Your task to perform on an android device: What's on my calendar tomorrow? Image 0: 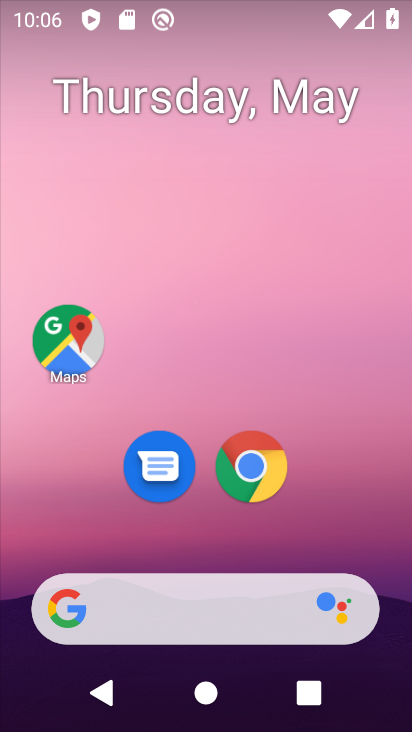
Step 0: press home button
Your task to perform on an android device: What's on my calendar tomorrow? Image 1: 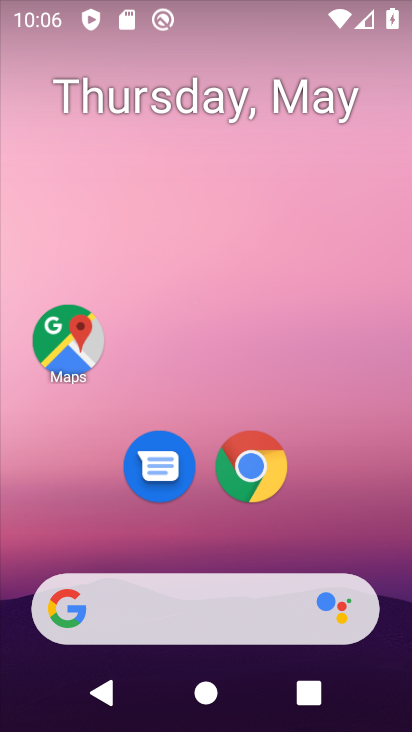
Step 1: drag from (315, 537) to (363, 4)
Your task to perform on an android device: What's on my calendar tomorrow? Image 2: 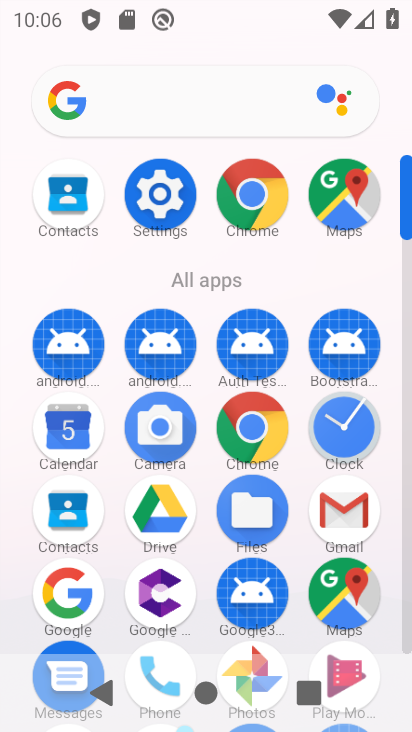
Step 2: click (54, 427)
Your task to perform on an android device: What's on my calendar tomorrow? Image 3: 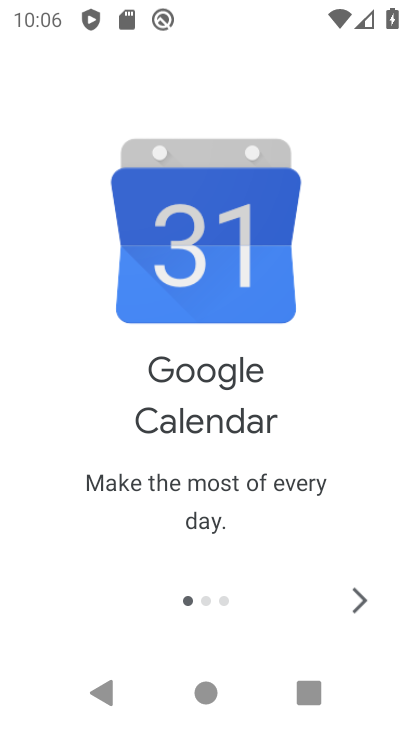
Step 3: click (353, 605)
Your task to perform on an android device: What's on my calendar tomorrow? Image 4: 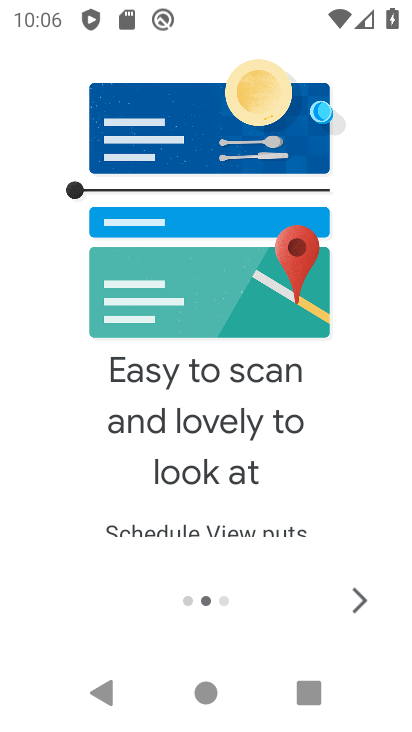
Step 4: click (353, 605)
Your task to perform on an android device: What's on my calendar tomorrow? Image 5: 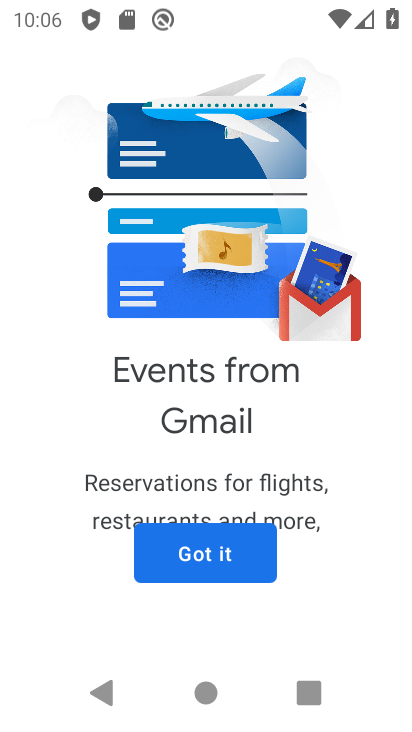
Step 5: click (353, 605)
Your task to perform on an android device: What's on my calendar tomorrow? Image 6: 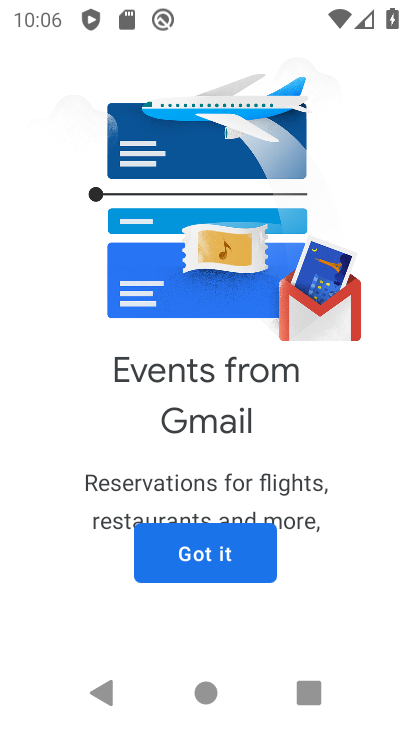
Step 6: click (152, 534)
Your task to perform on an android device: What's on my calendar tomorrow? Image 7: 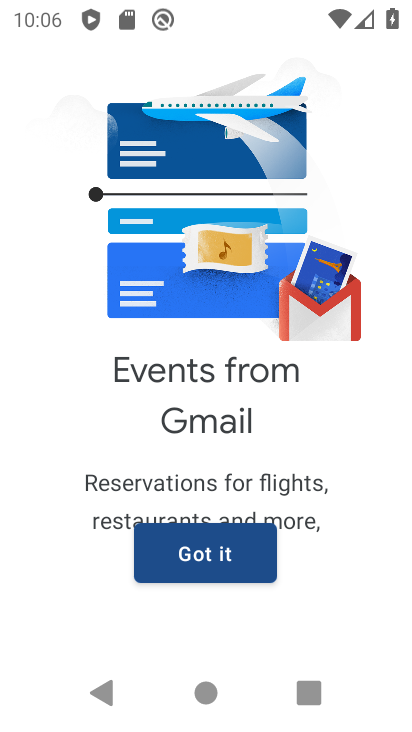
Step 7: click (163, 544)
Your task to perform on an android device: What's on my calendar tomorrow? Image 8: 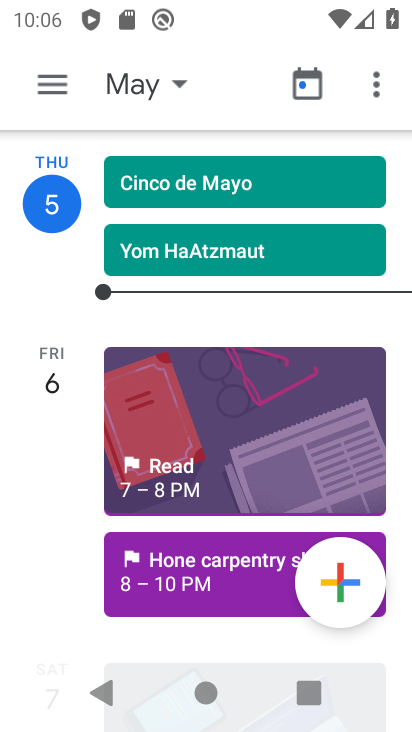
Step 8: click (53, 364)
Your task to perform on an android device: What's on my calendar tomorrow? Image 9: 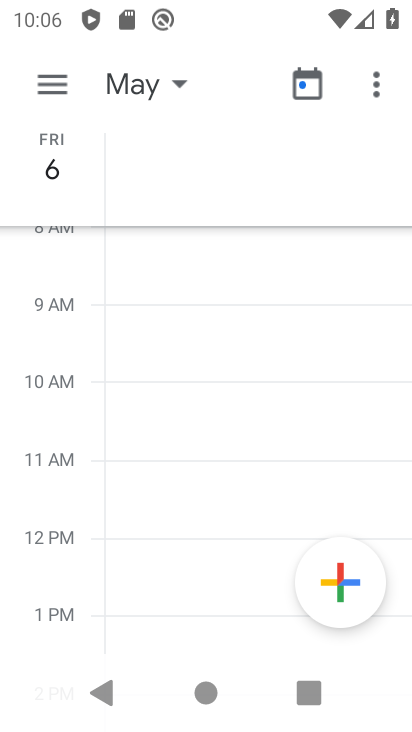
Step 9: task complete